Your task to perform on an android device: add a contact Image 0: 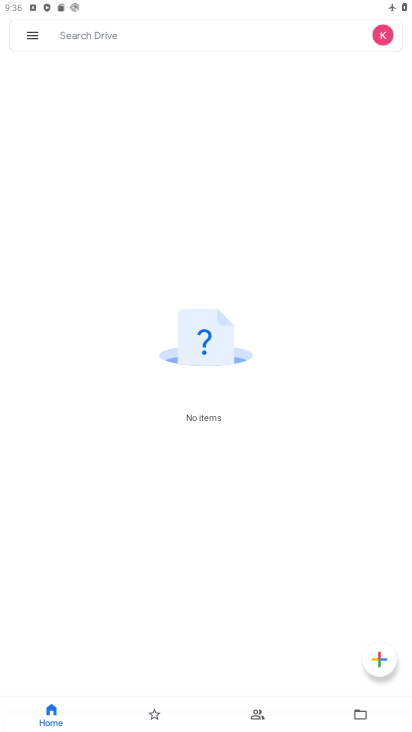
Step 0: press home button
Your task to perform on an android device: add a contact Image 1: 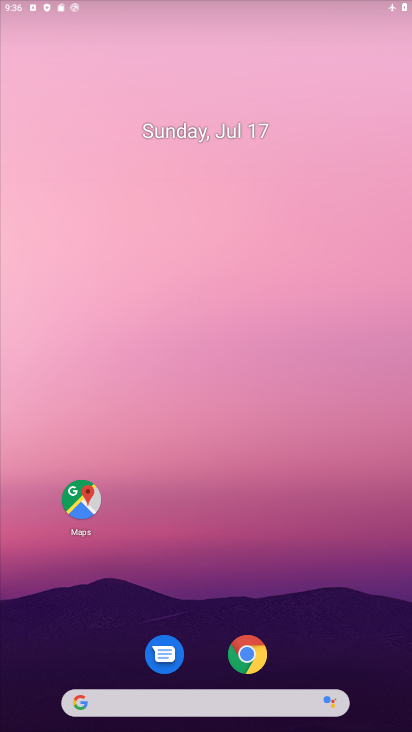
Step 1: drag from (205, 584) to (215, 57)
Your task to perform on an android device: add a contact Image 2: 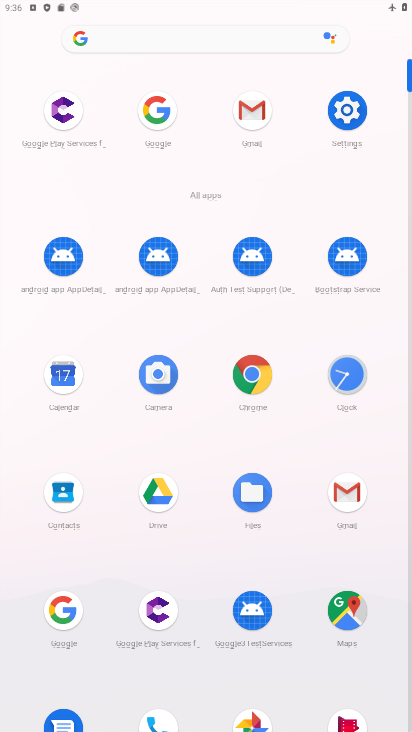
Step 2: click (52, 507)
Your task to perform on an android device: add a contact Image 3: 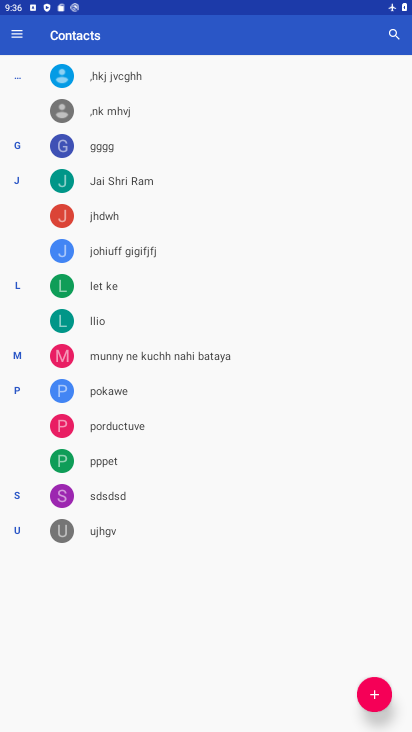
Step 3: click (362, 701)
Your task to perform on an android device: add a contact Image 4: 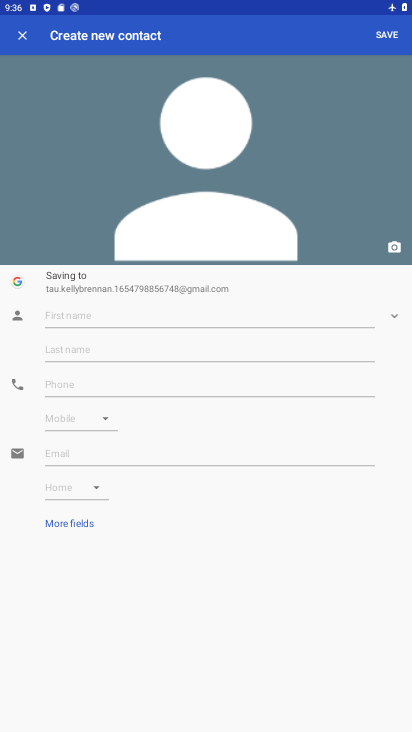
Step 4: click (115, 319)
Your task to perform on an android device: add a contact Image 5: 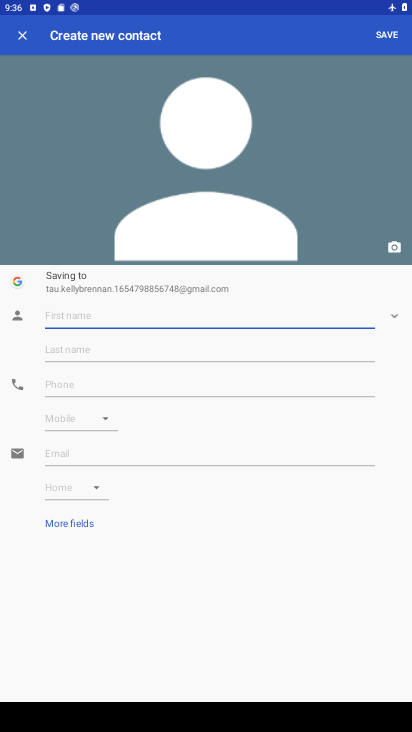
Step 5: type "fghfh"
Your task to perform on an android device: add a contact Image 6: 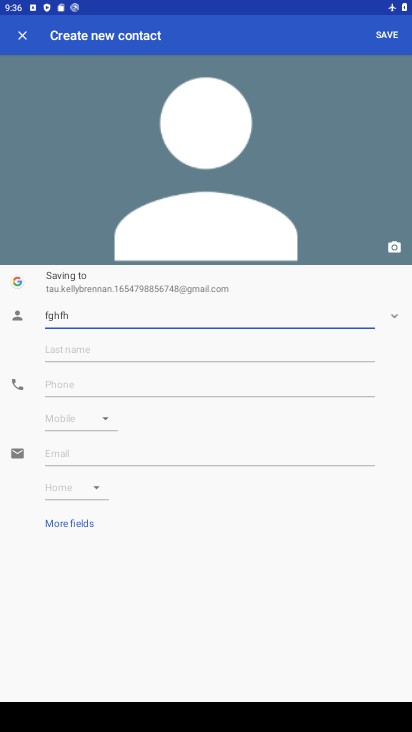
Step 6: click (91, 375)
Your task to perform on an android device: add a contact Image 7: 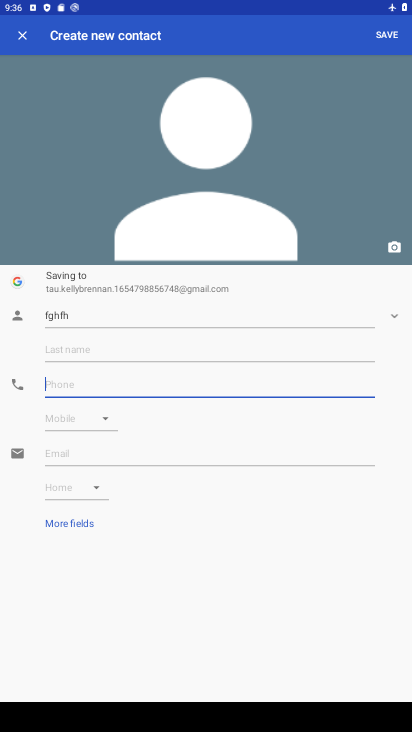
Step 7: type "586657564457"
Your task to perform on an android device: add a contact Image 8: 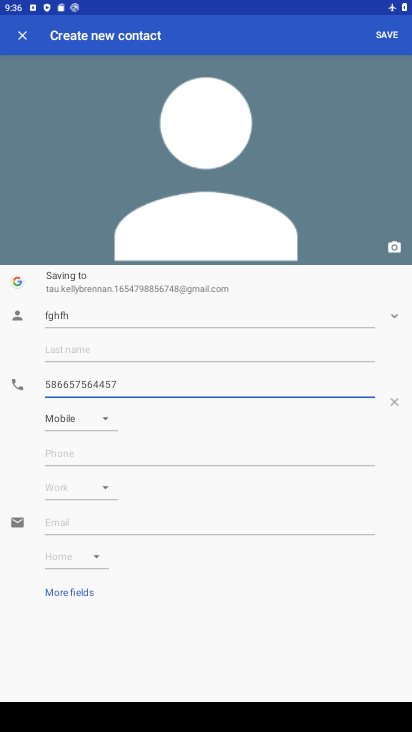
Step 8: click (389, 34)
Your task to perform on an android device: add a contact Image 9: 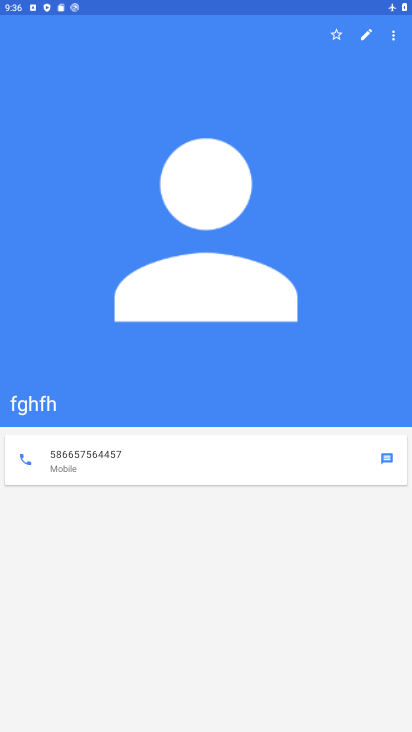
Step 9: task complete